Your task to perform on an android device: Open privacy settings Image 0: 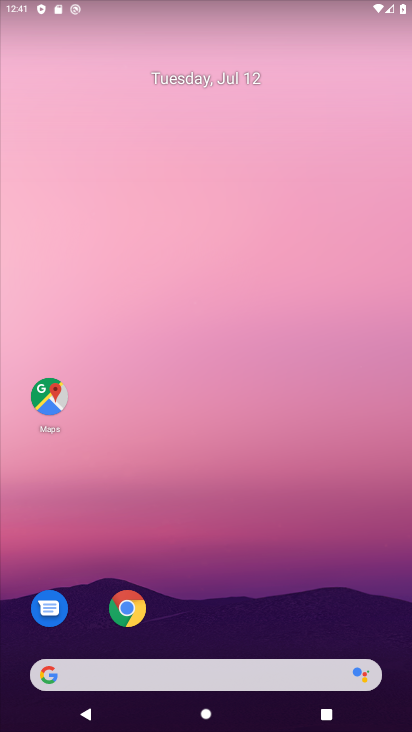
Step 0: drag from (265, 614) to (184, 168)
Your task to perform on an android device: Open privacy settings Image 1: 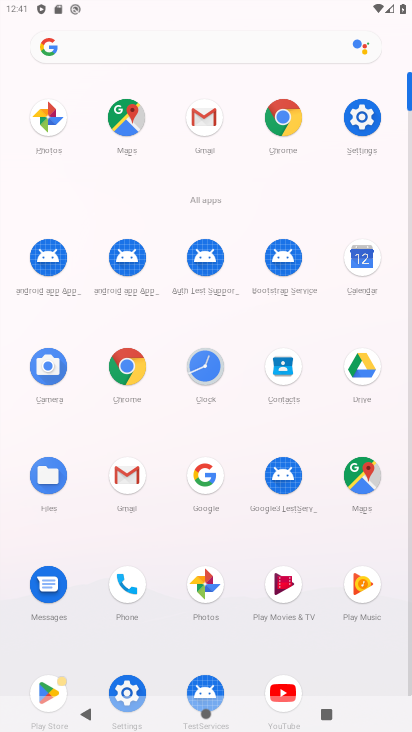
Step 1: click (362, 113)
Your task to perform on an android device: Open privacy settings Image 2: 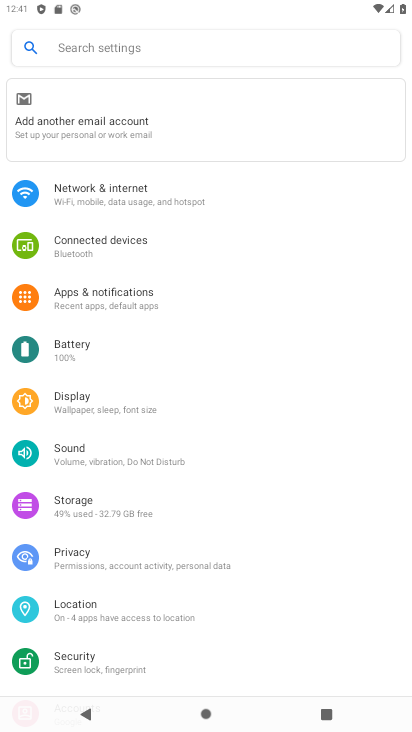
Step 2: click (152, 567)
Your task to perform on an android device: Open privacy settings Image 3: 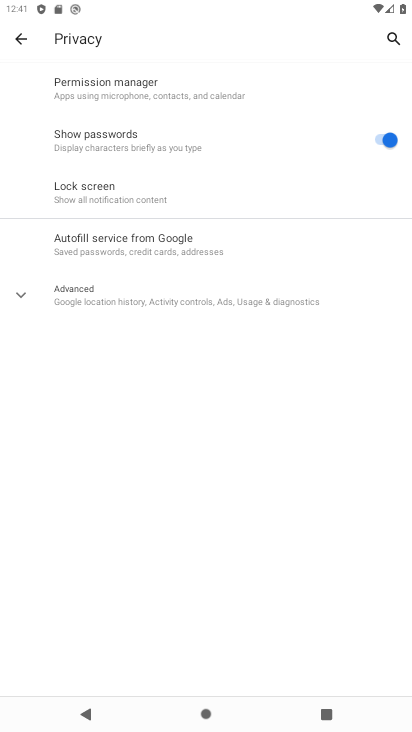
Step 3: task complete